Your task to perform on an android device: Go to network settings Image 0: 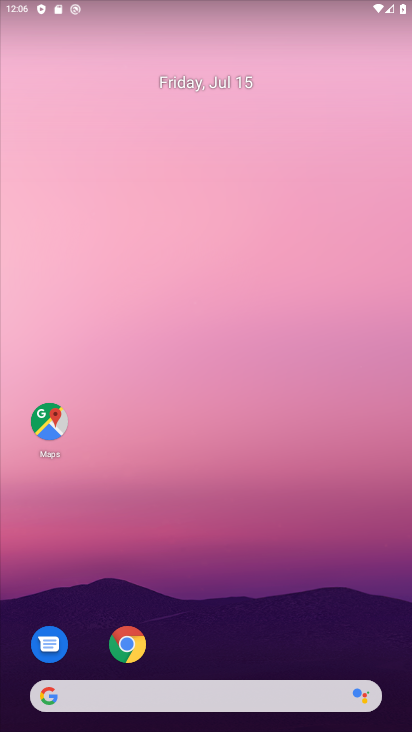
Step 0: drag from (202, 708) to (191, 227)
Your task to perform on an android device: Go to network settings Image 1: 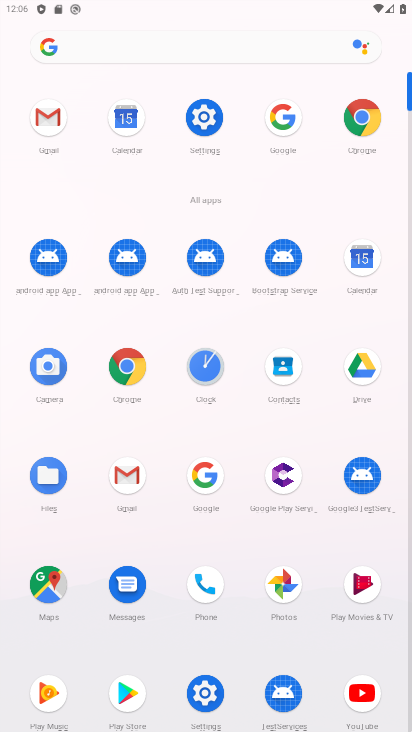
Step 1: click (208, 131)
Your task to perform on an android device: Go to network settings Image 2: 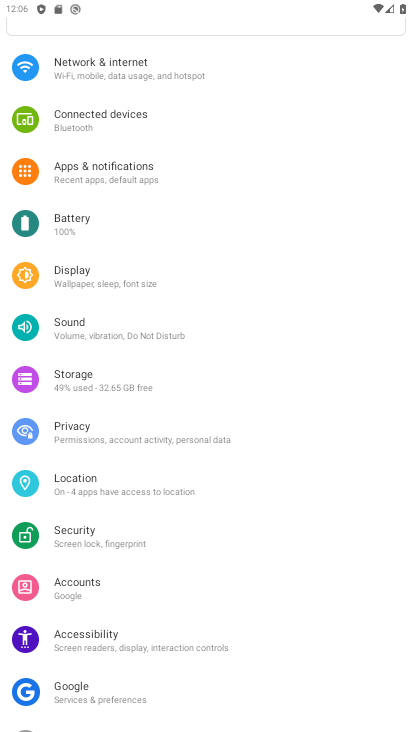
Step 2: click (86, 62)
Your task to perform on an android device: Go to network settings Image 3: 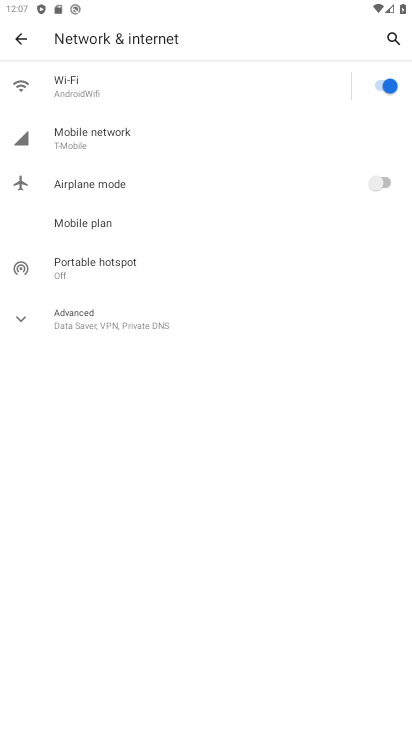
Step 3: task complete